Your task to perform on an android device: Open Google Chrome Image 0: 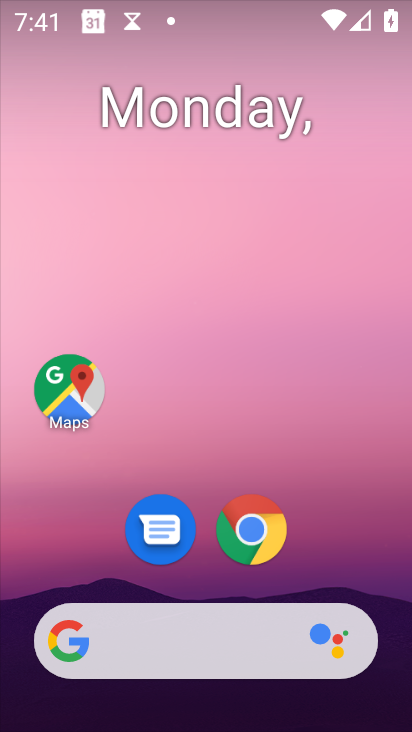
Step 0: click (243, 525)
Your task to perform on an android device: Open Google Chrome Image 1: 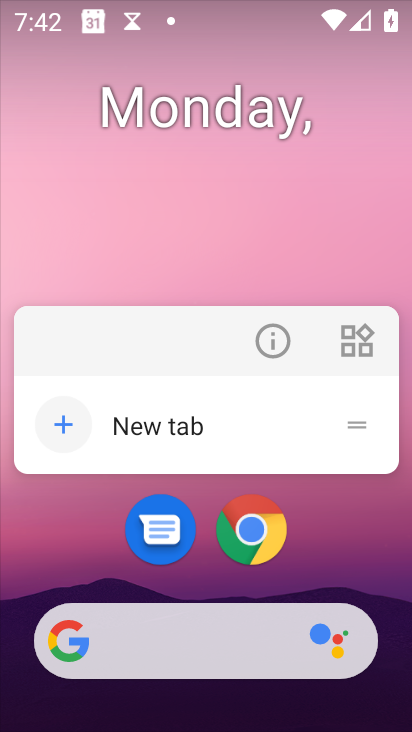
Step 1: click (277, 331)
Your task to perform on an android device: Open Google Chrome Image 2: 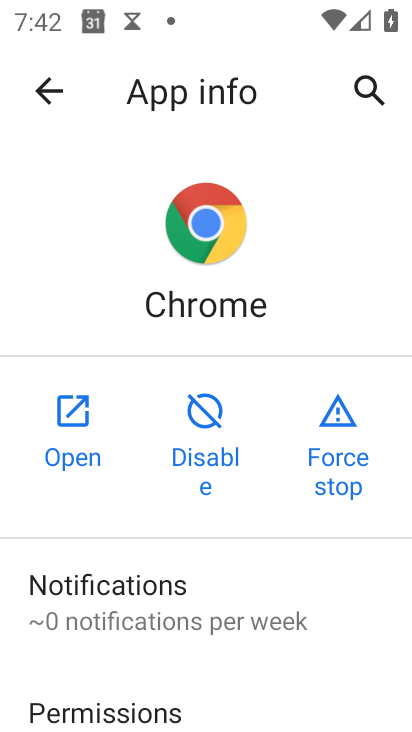
Step 2: click (85, 412)
Your task to perform on an android device: Open Google Chrome Image 3: 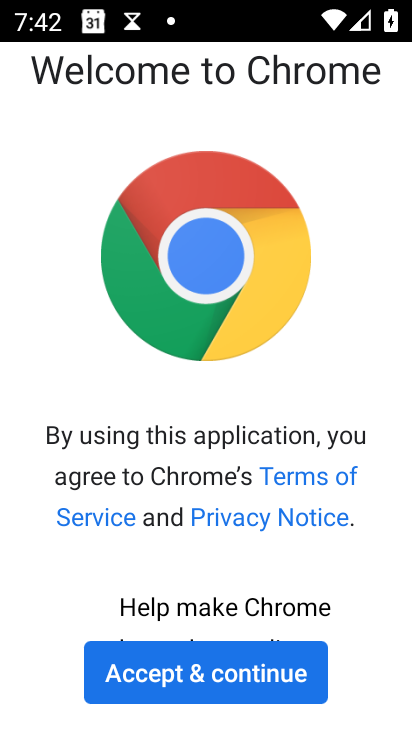
Step 3: click (251, 666)
Your task to perform on an android device: Open Google Chrome Image 4: 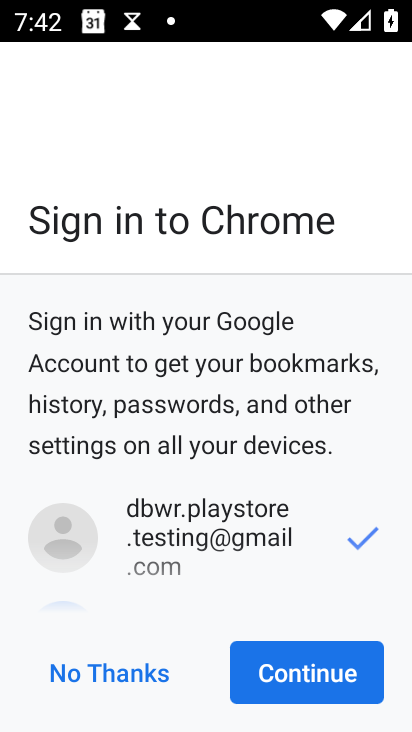
Step 4: click (134, 683)
Your task to perform on an android device: Open Google Chrome Image 5: 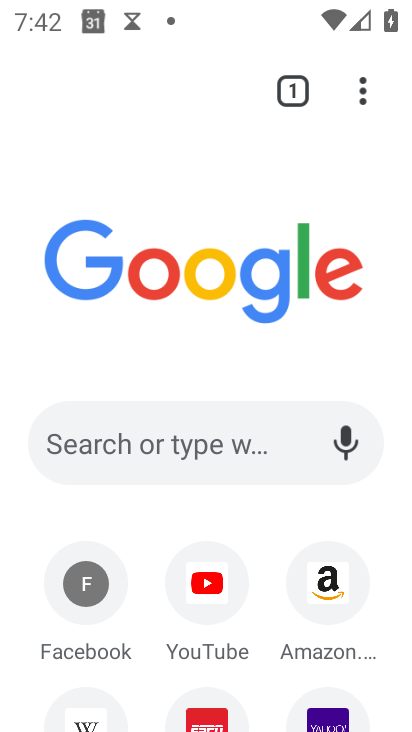
Step 5: task complete